Your task to perform on an android device: Show me productivity apps on the Play Store Image 0: 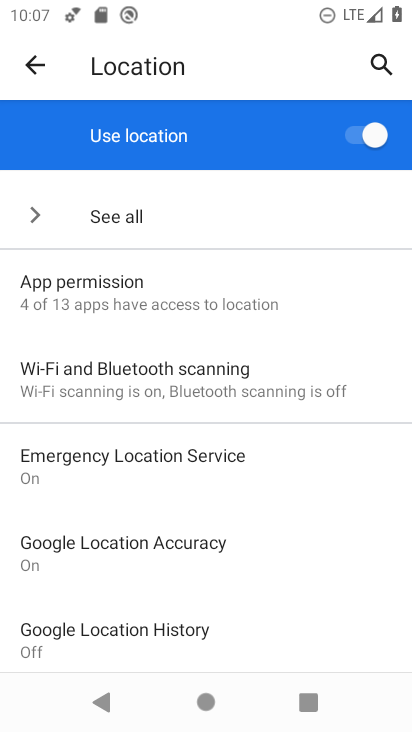
Step 0: drag from (140, 515) to (164, 319)
Your task to perform on an android device: Show me productivity apps on the Play Store Image 1: 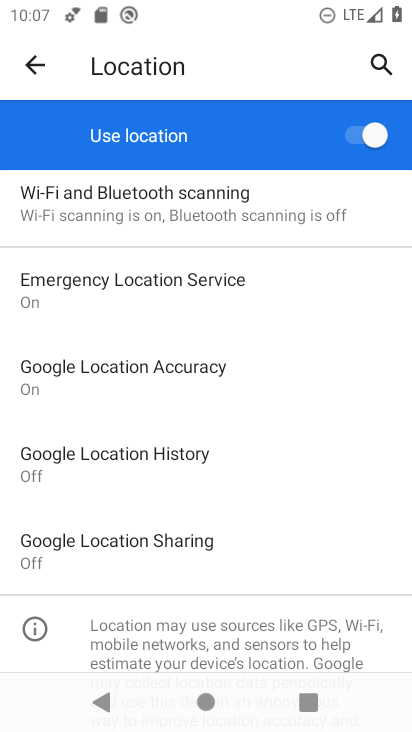
Step 1: press home button
Your task to perform on an android device: Show me productivity apps on the Play Store Image 2: 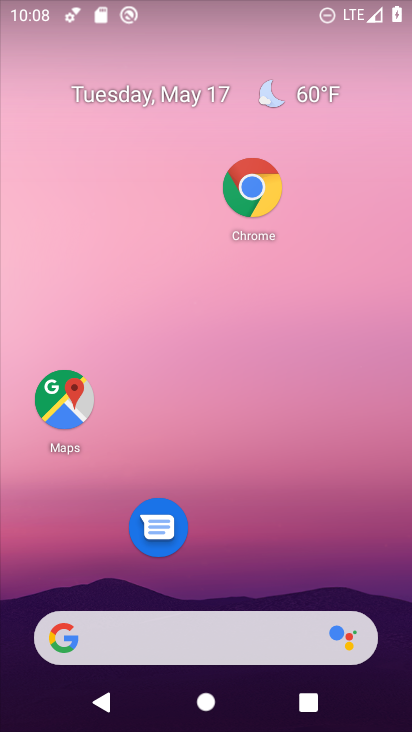
Step 2: drag from (278, 567) to (271, 152)
Your task to perform on an android device: Show me productivity apps on the Play Store Image 3: 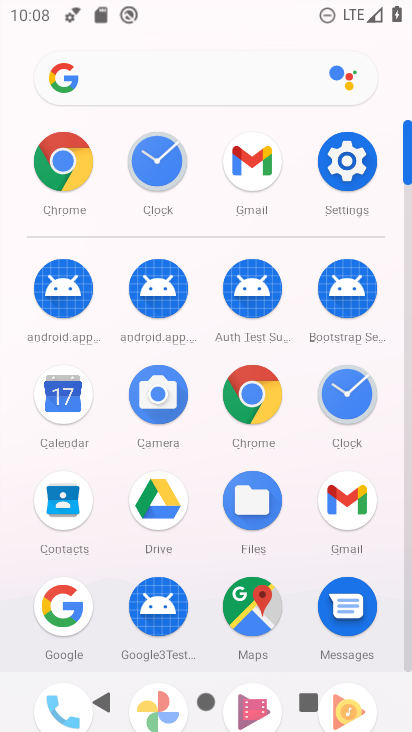
Step 3: click (405, 642)
Your task to perform on an android device: Show me productivity apps on the Play Store Image 4: 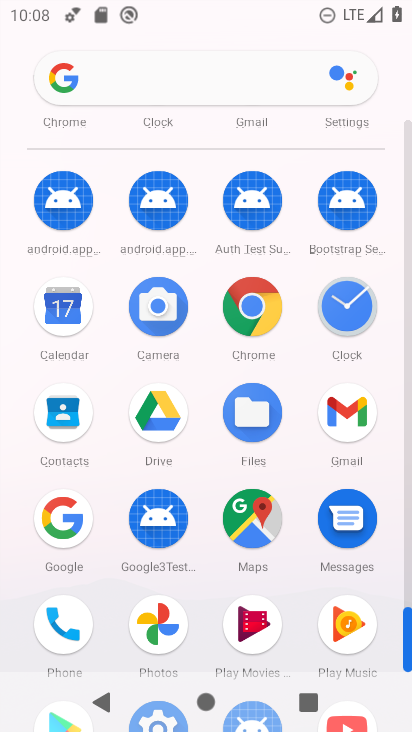
Step 4: drag from (409, 457) to (399, 589)
Your task to perform on an android device: Show me productivity apps on the Play Store Image 5: 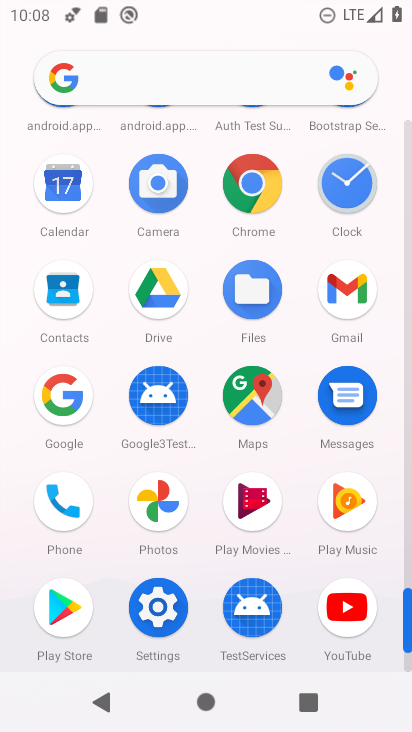
Step 5: click (51, 598)
Your task to perform on an android device: Show me productivity apps on the Play Store Image 6: 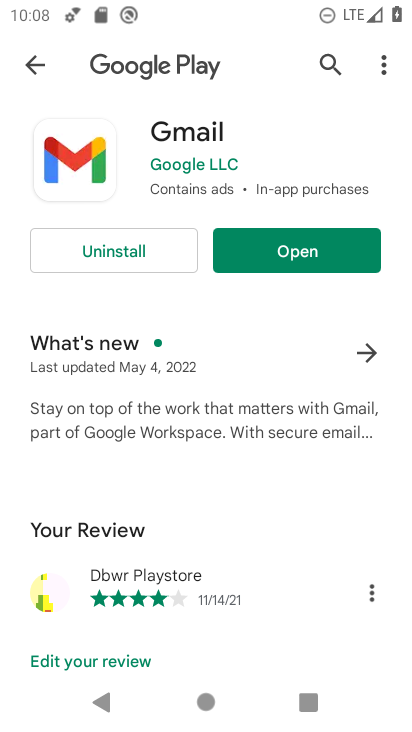
Step 6: click (28, 62)
Your task to perform on an android device: Show me productivity apps on the Play Store Image 7: 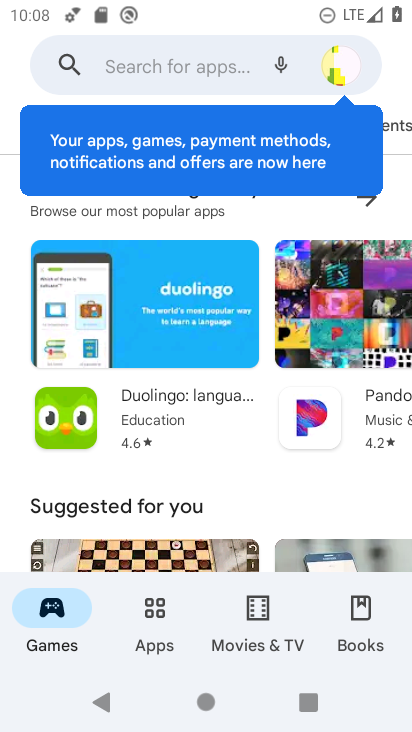
Step 7: click (160, 627)
Your task to perform on an android device: Show me productivity apps on the Play Store Image 8: 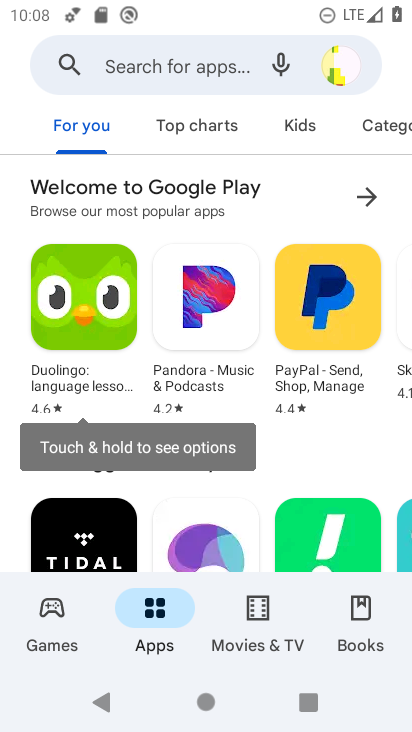
Step 8: click (209, 134)
Your task to perform on an android device: Show me productivity apps on the Play Store Image 9: 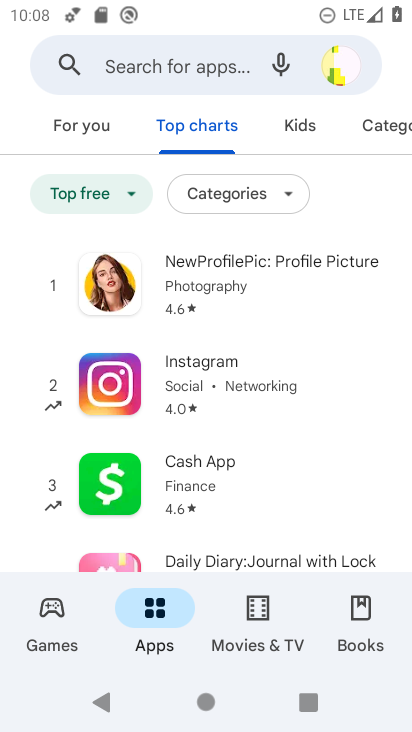
Step 9: click (225, 187)
Your task to perform on an android device: Show me productivity apps on the Play Store Image 10: 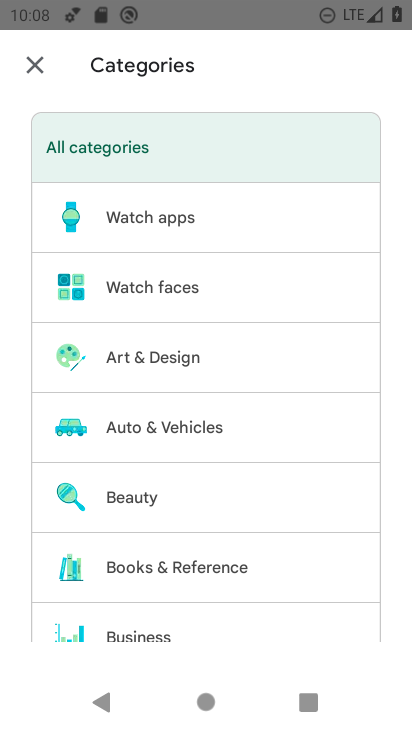
Step 10: drag from (177, 643) to (177, 224)
Your task to perform on an android device: Show me productivity apps on the Play Store Image 11: 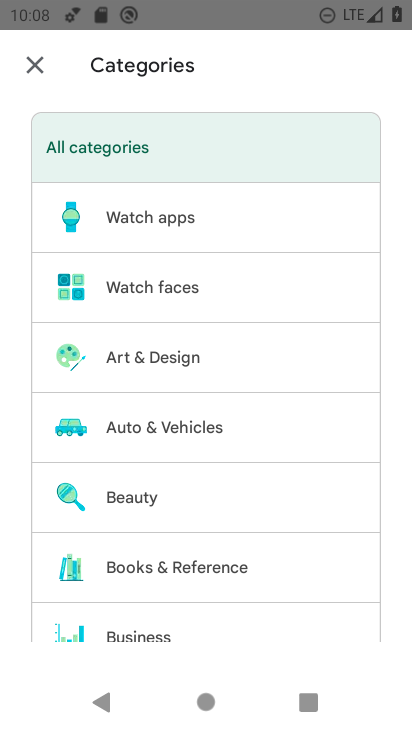
Step 11: drag from (166, 494) to (187, 287)
Your task to perform on an android device: Show me productivity apps on the Play Store Image 12: 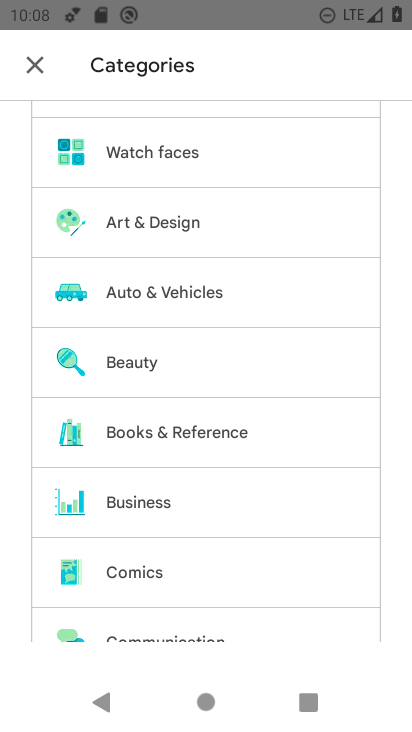
Step 12: drag from (162, 534) to (191, 267)
Your task to perform on an android device: Show me productivity apps on the Play Store Image 13: 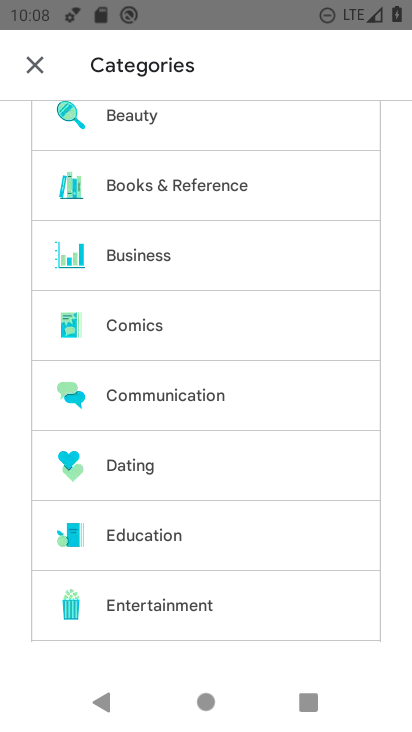
Step 13: drag from (167, 535) to (195, 319)
Your task to perform on an android device: Show me productivity apps on the Play Store Image 14: 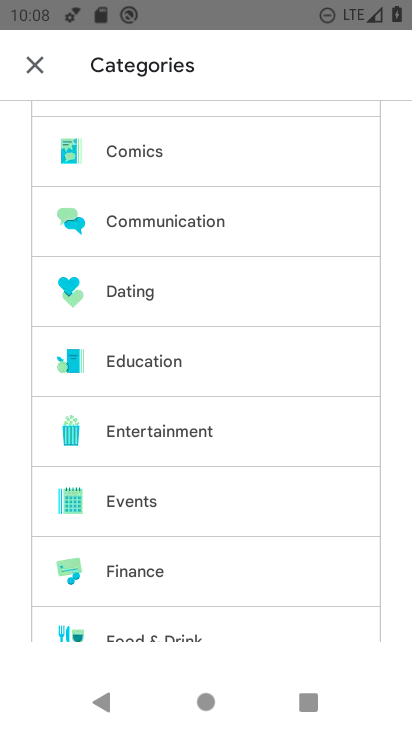
Step 14: drag from (156, 487) to (158, 159)
Your task to perform on an android device: Show me productivity apps on the Play Store Image 15: 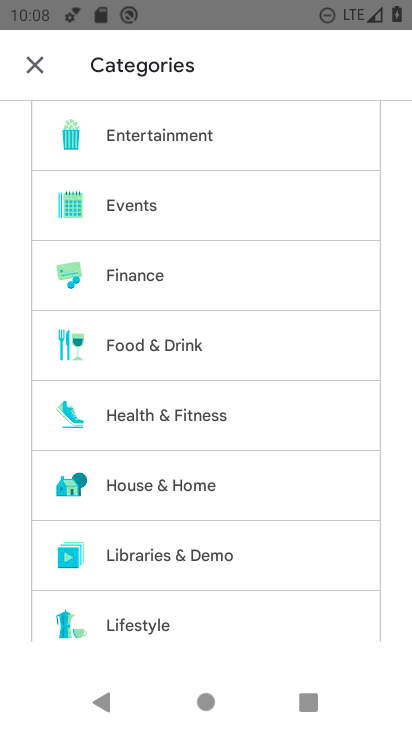
Step 15: drag from (130, 545) to (151, 190)
Your task to perform on an android device: Show me productivity apps on the Play Store Image 16: 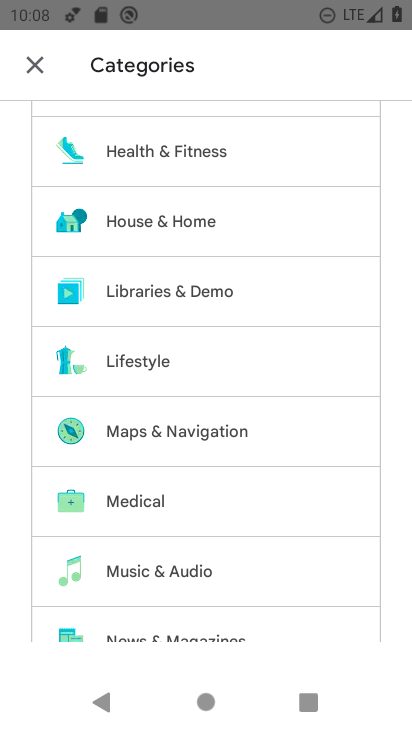
Step 16: drag from (160, 609) to (196, 207)
Your task to perform on an android device: Show me productivity apps on the Play Store Image 17: 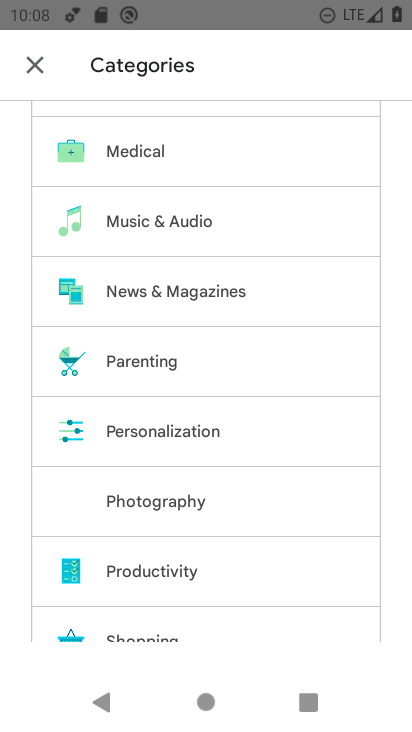
Step 17: click (180, 578)
Your task to perform on an android device: Show me productivity apps on the Play Store Image 18: 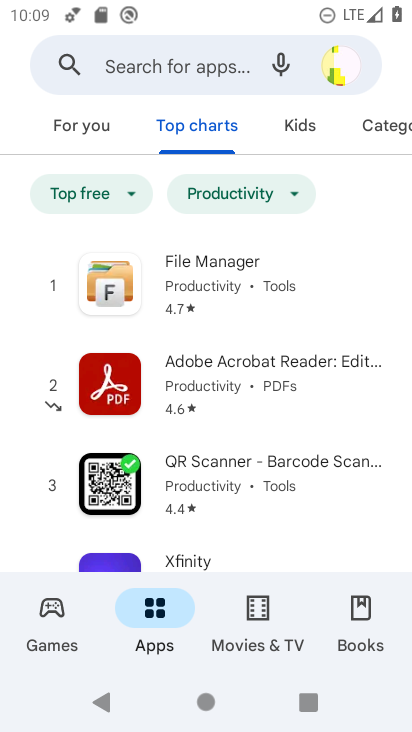
Step 18: task complete